Your task to perform on an android device: Open internet settings Image 0: 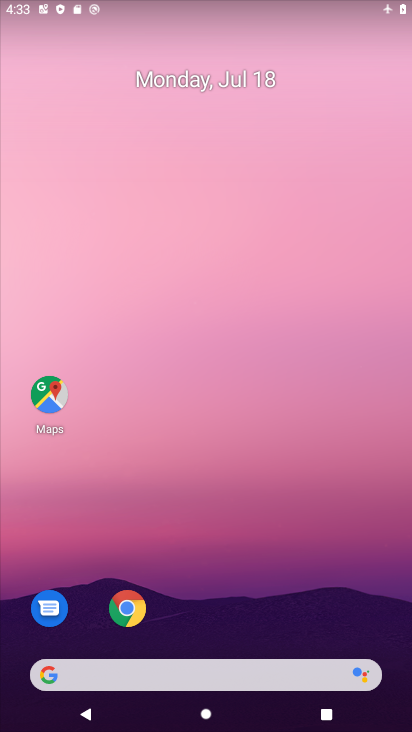
Step 0: drag from (280, 528) to (255, 116)
Your task to perform on an android device: Open internet settings Image 1: 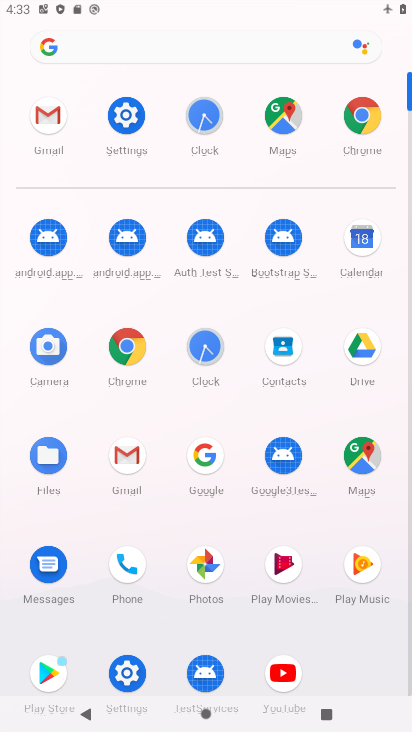
Step 1: click (125, 105)
Your task to perform on an android device: Open internet settings Image 2: 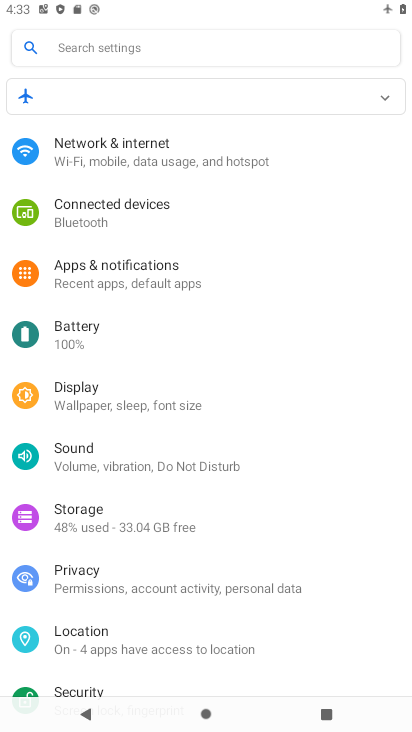
Step 2: click (125, 157)
Your task to perform on an android device: Open internet settings Image 3: 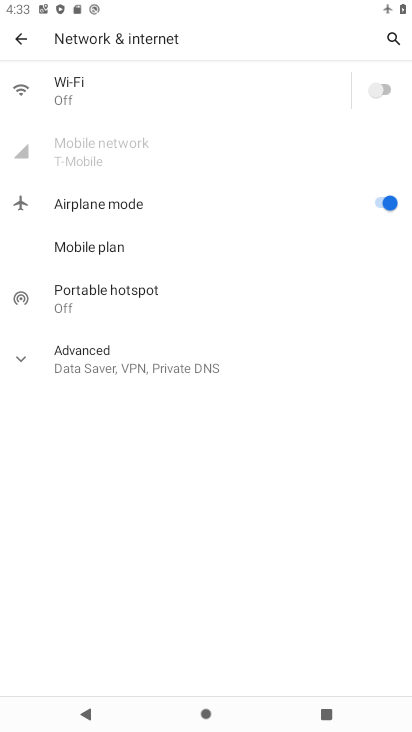
Step 3: click (147, 363)
Your task to perform on an android device: Open internet settings Image 4: 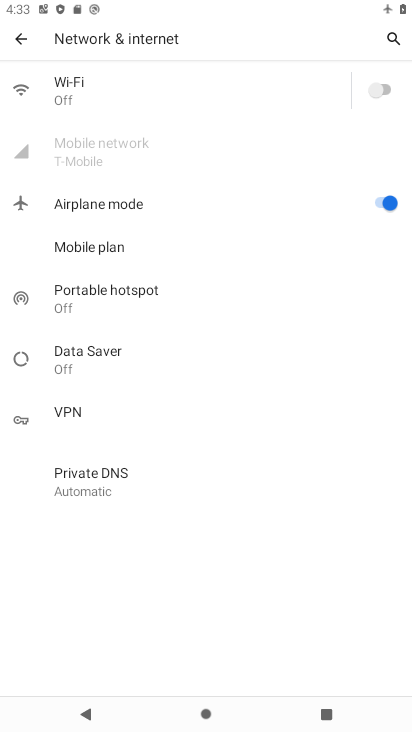
Step 4: task complete